Your task to perform on an android device: Go to notification settings Image 0: 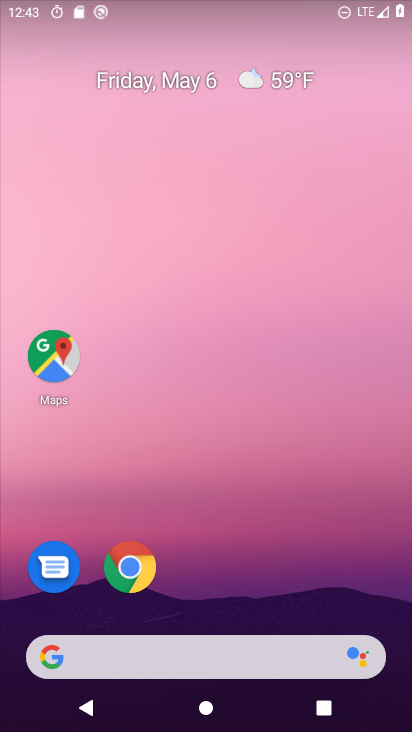
Step 0: drag from (308, 595) to (292, 4)
Your task to perform on an android device: Go to notification settings Image 1: 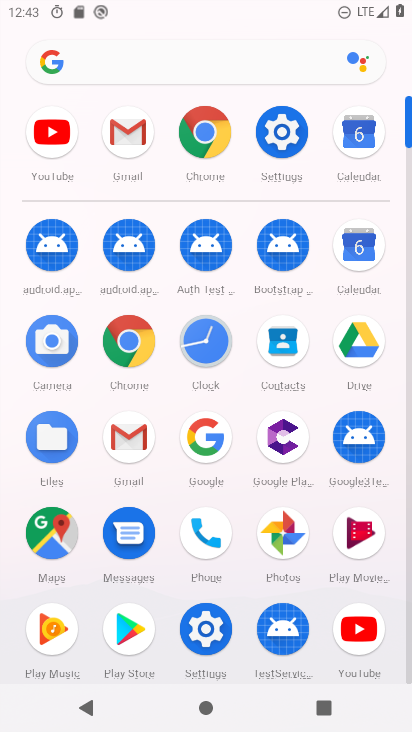
Step 1: click (278, 129)
Your task to perform on an android device: Go to notification settings Image 2: 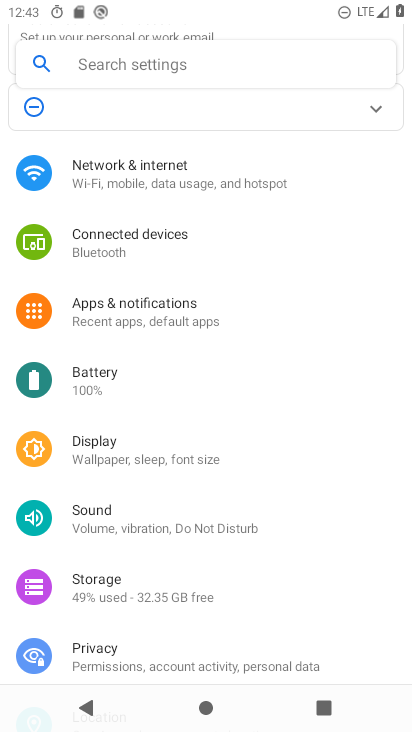
Step 2: click (137, 322)
Your task to perform on an android device: Go to notification settings Image 3: 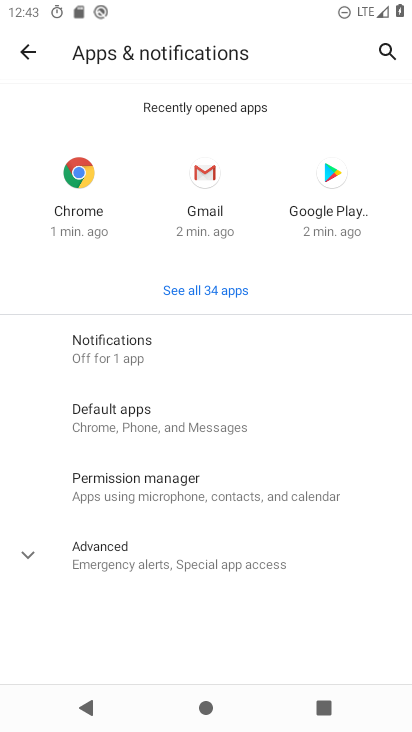
Step 3: task complete